Your task to perform on an android device: Play the last video I watched on Youtube Image 0: 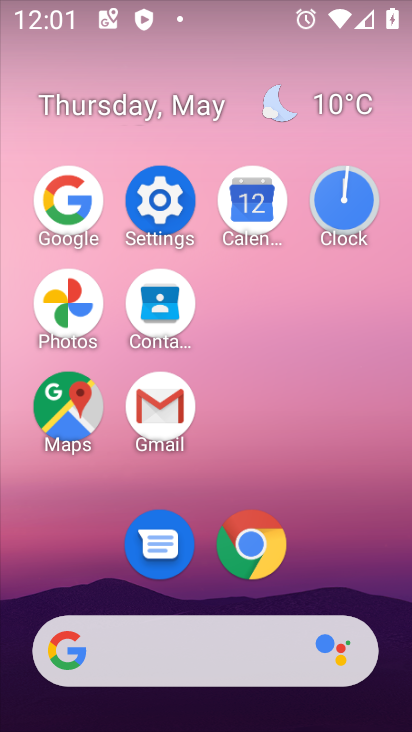
Step 0: drag from (329, 573) to (299, 160)
Your task to perform on an android device: Play the last video I watched on Youtube Image 1: 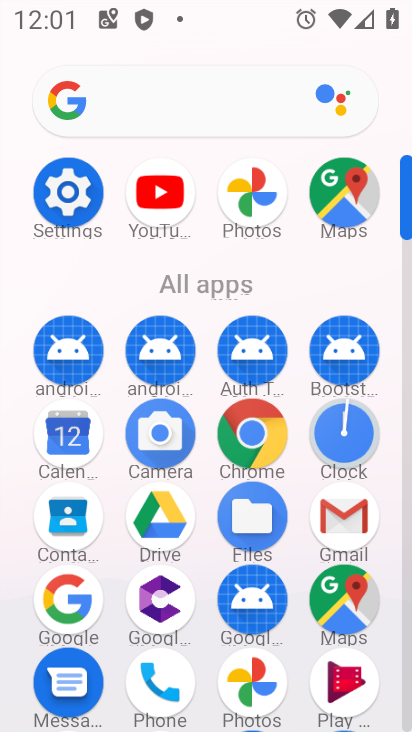
Step 1: click (150, 215)
Your task to perform on an android device: Play the last video I watched on Youtube Image 2: 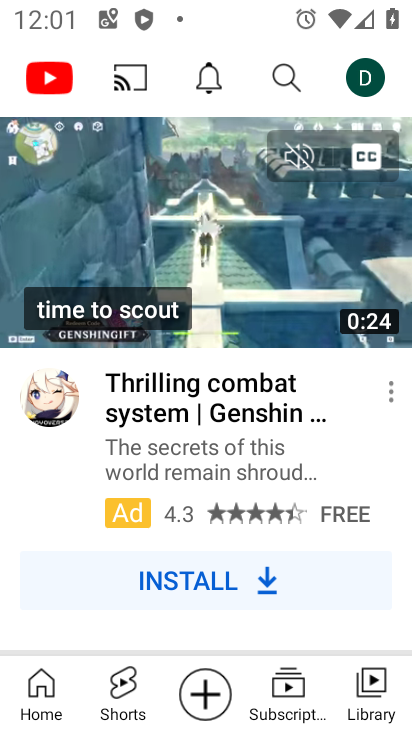
Step 2: click (367, 690)
Your task to perform on an android device: Play the last video I watched on Youtube Image 3: 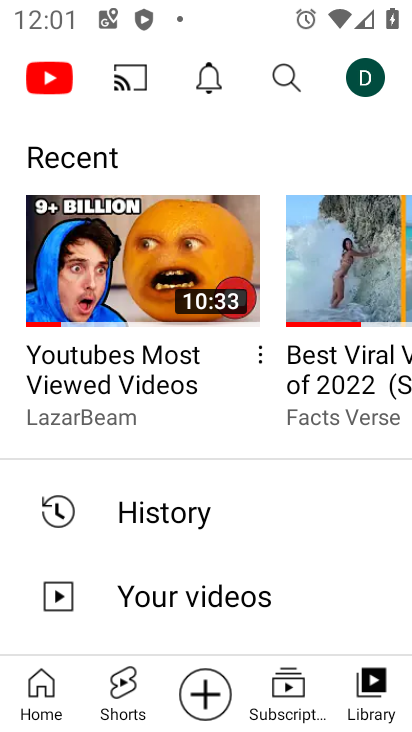
Step 3: drag from (317, 581) to (342, 214)
Your task to perform on an android device: Play the last video I watched on Youtube Image 4: 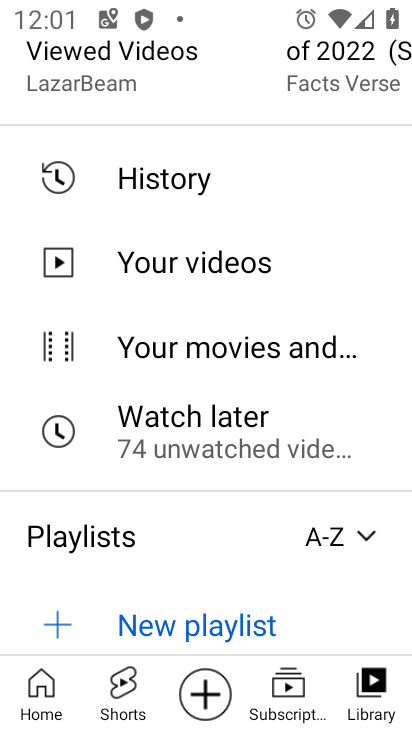
Step 4: click (210, 167)
Your task to perform on an android device: Play the last video I watched on Youtube Image 5: 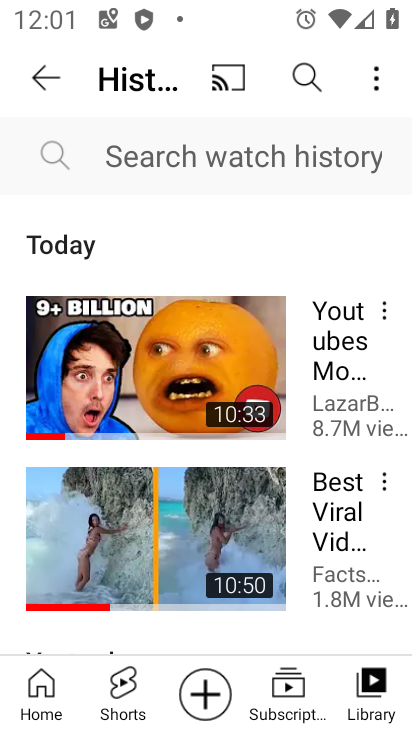
Step 5: task complete